Your task to perform on an android device: open app "Microsoft Excel" (install if not already installed) Image 0: 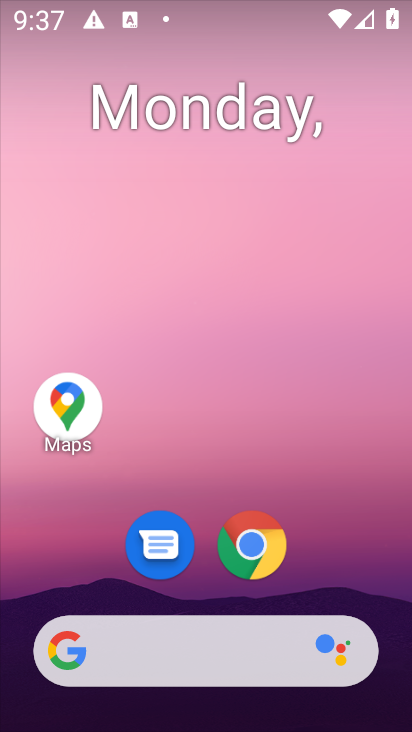
Step 0: press home button
Your task to perform on an android device: open app "Microsoft Excel" (install if not already installed) Image 1: 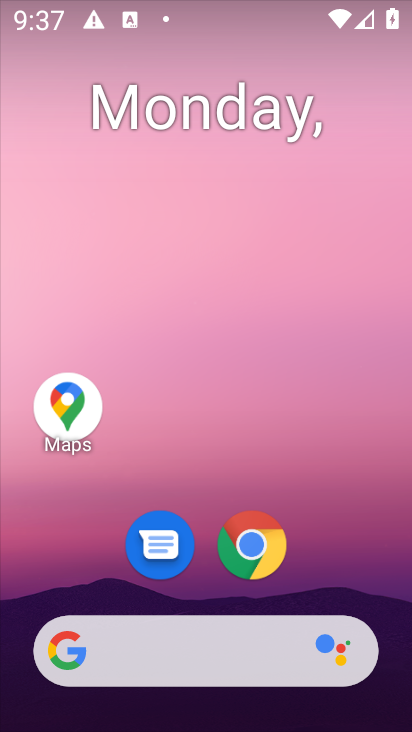
Step 1: drag from (350, 546) to (353, 71)
Your task to perform on an android device: open app "Microsoft Excel" (install if not already installed) Image 2: 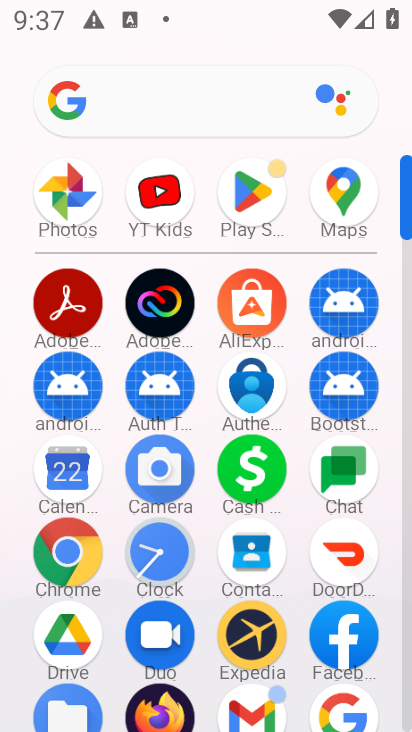
Step 2: click (254, 198)
Your task to perform on an android device: open app "Microsoft Excel" (install if not already installed) Image 3: 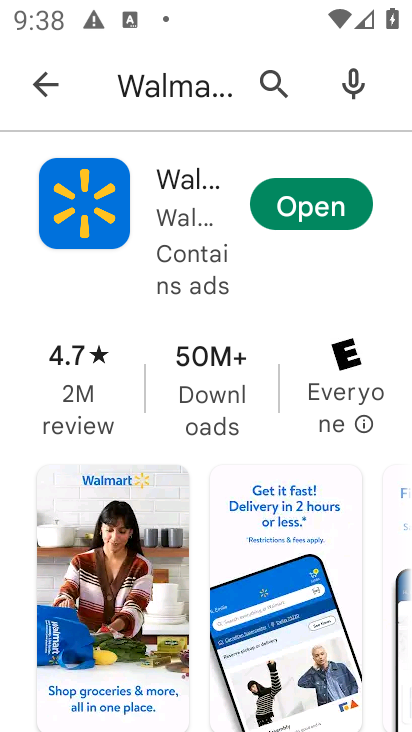
Step 3: press back button
Your task to perform on an android device: open app "Microsoft Excel" (install if not already installed) Image 4: 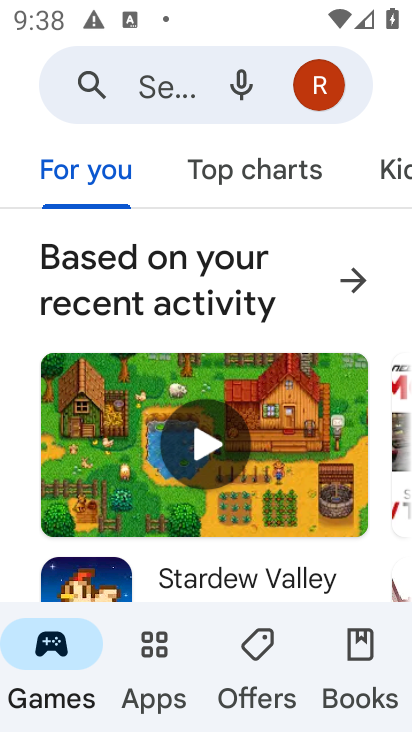
Step 4: click (139, 82)
Your task to perform on an android device: open app "Microsoft Excel" (install if not already installed) Image 5: 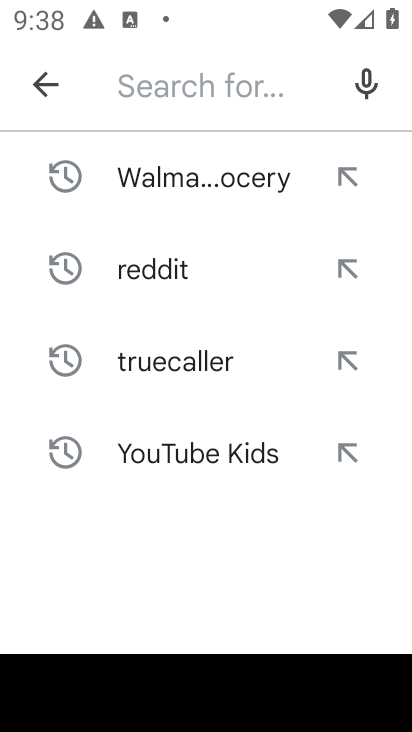
Step 5: type "Microsoft Excel"
Your task to perform on an android device: open app "Microsoft Excel" (install if not already installed) Image 6: 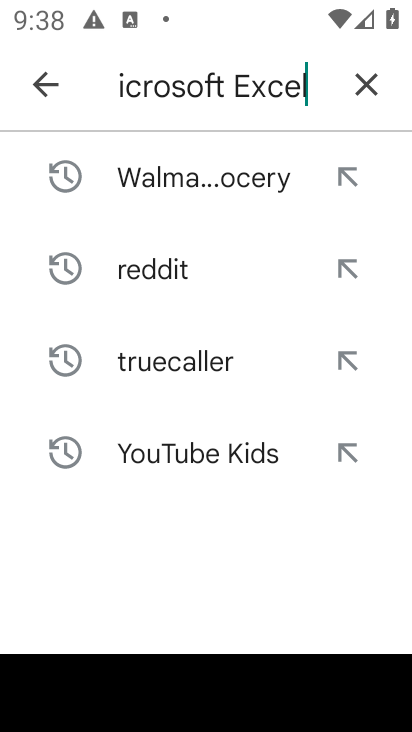
Step 6: press enter
Your task to perform on an android device: open app "Microsoft Excel" (install if not already installed) Image 7: 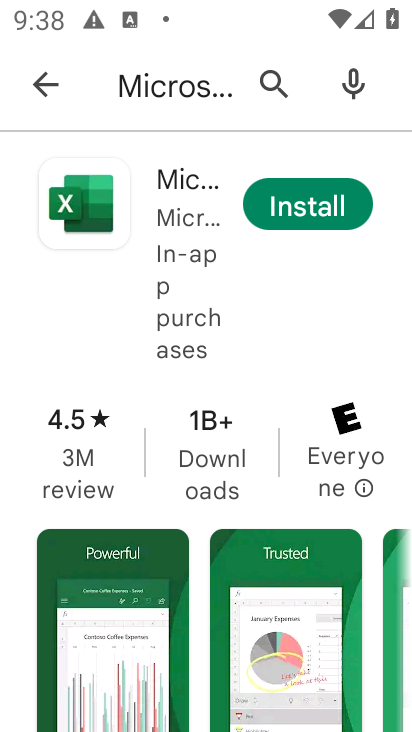
Step 7: click (316, 210)
Your task to perform on an android device: open app "Microsoft Excel" (install if not already installed) Image 8: 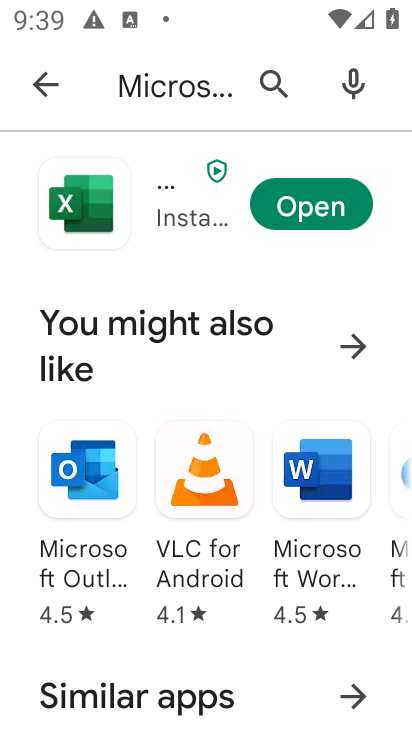
Step 8: click (327, 205)
Your task to perform on an android device: open app "Microsoft Excel" (install if not already installed) Image 9: 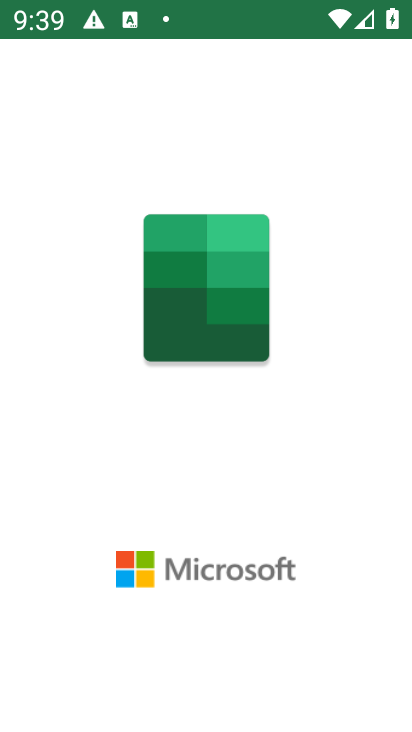
Step 9: task complete